Your task to perform on an android device: create a new album in the google photos Image 0: 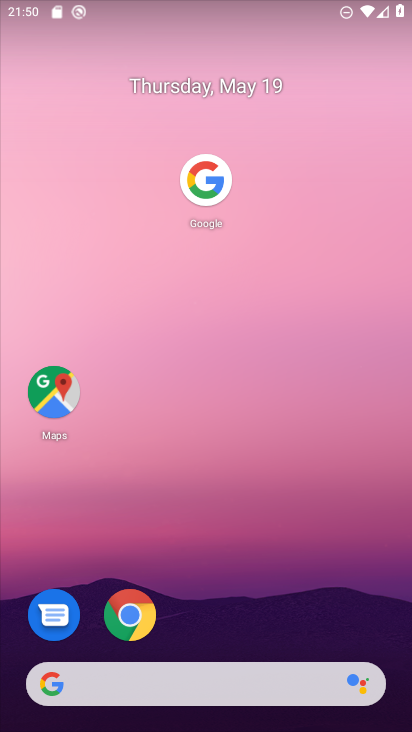
Step 0: drag from (233, 595) to (261, 94)
Your task to perform on an android device: create a new album in the google photos Image 1: 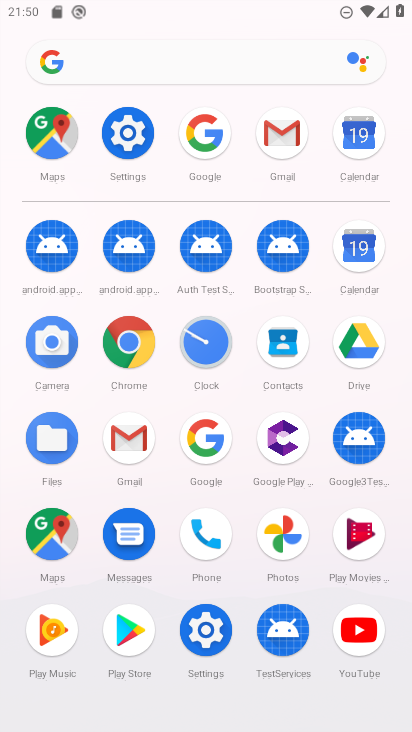
Step 1: click (274, 532)
Your task to perform on an android device: create a new album in the google photos Image 2: 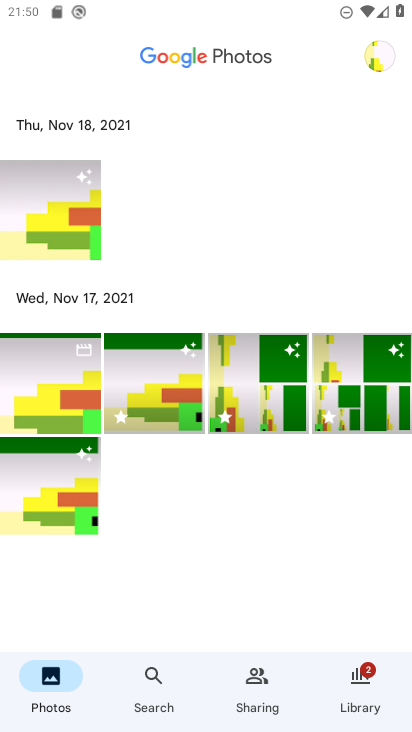
Step 2: click (367, 688)
Your task to perform on an android device: create a new album in the google photos Image 3: 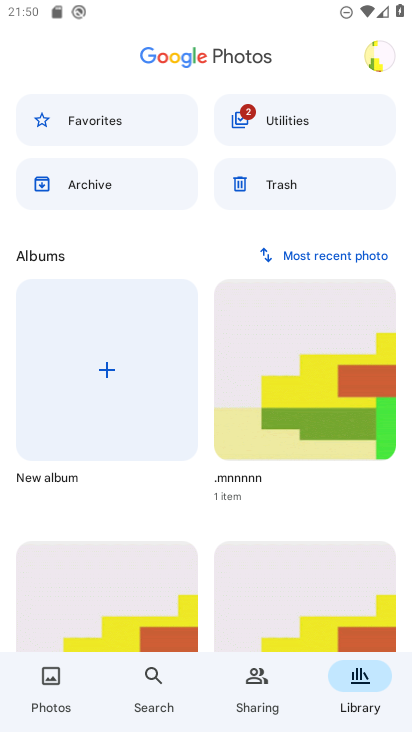
Step 3: click (108, 368)
Your task to perform on an android device: create a new album in the google photos Image 4: 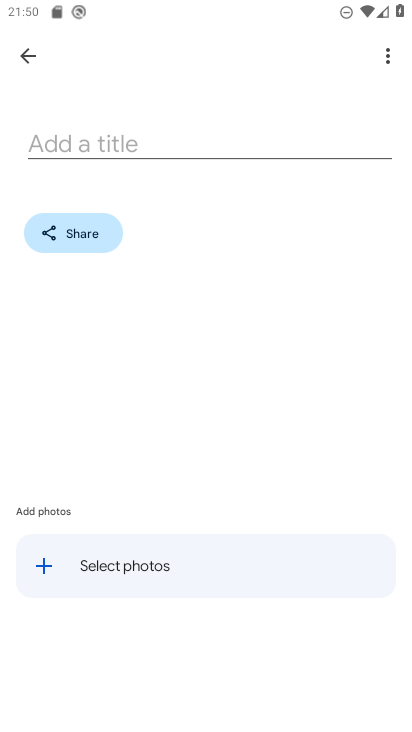
Step 4: click (93, 137)
Your task to perform on an android device: create a new album in the google photos Image 5: 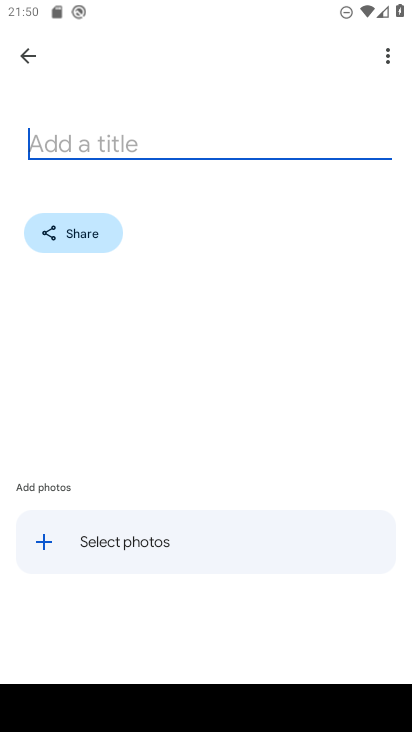
Step 5: type "rgrg"
Your task to perform on an android device: create a new album in the google photos Image 6: 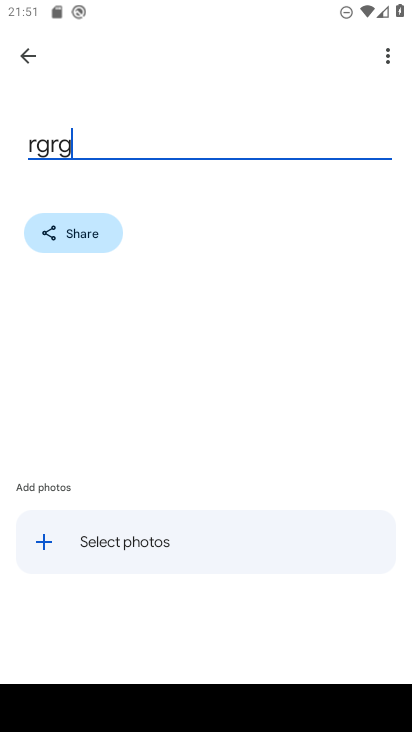
Step 6: click (41, 549)
Your task to perform on an android device: create a new album in the google photos Image 7: 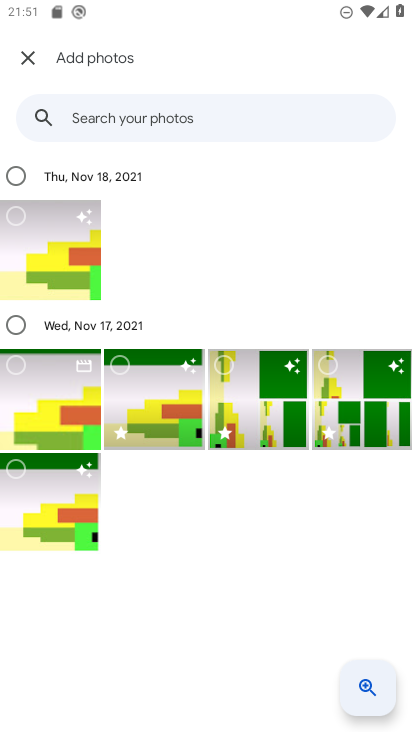
Step 7: click (70, 237)
Your task to perform on an android device: create a new album in the google photos Image 8: 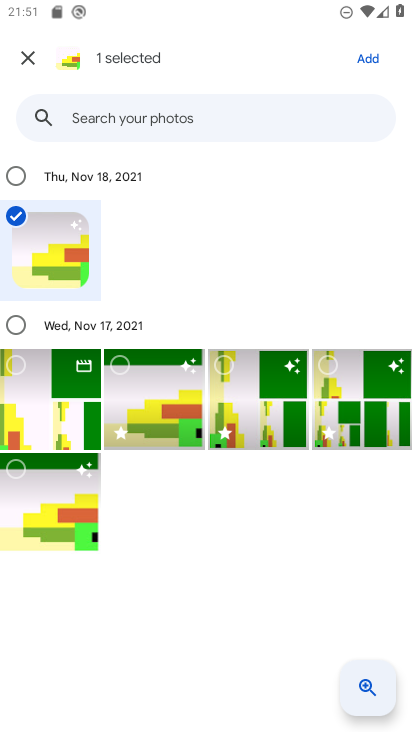
Step 8: click (371, 63)
Your task to perform on an android device: create a new album in the google photos Image 9: 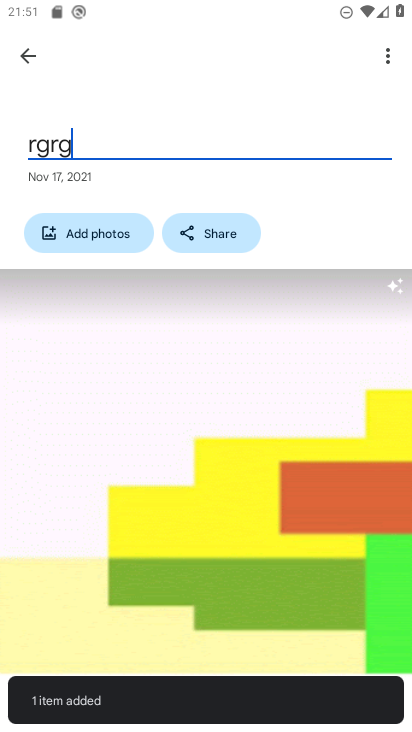
Step 9: task complete